Your task to perform on an android device: Open Youtube and go to the subscriptions tab Image 0: 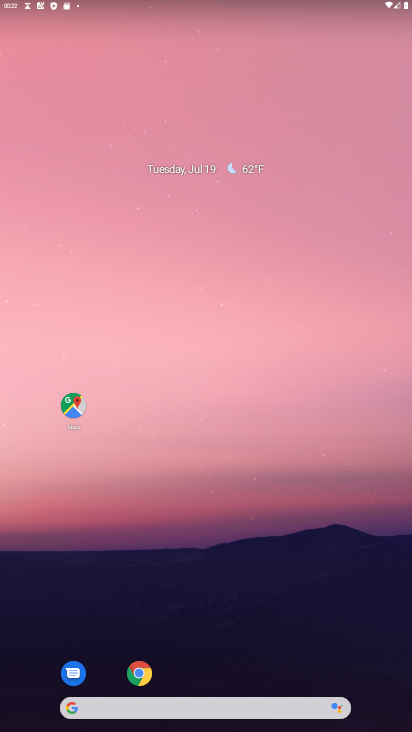
Step 0: drag from (236, 681) to (243, 259)
Your task to perform on an android device: Open Youtube and go to the subscriptions tab Image 1: 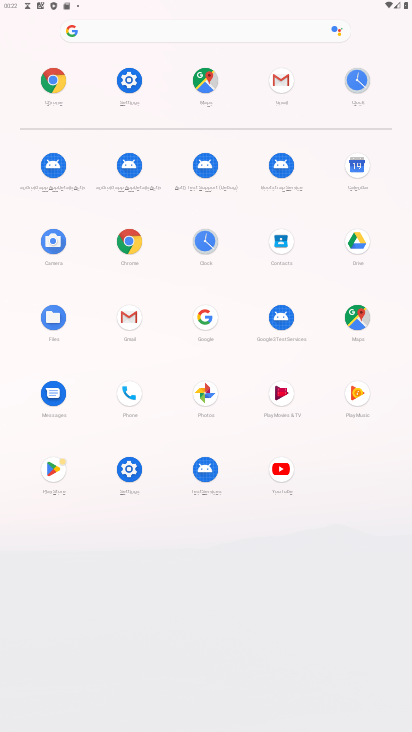
Step 1: click (281, 464)
Your task to perform on an android device: Open Youtube and go to the subscriptions tab Image 2: 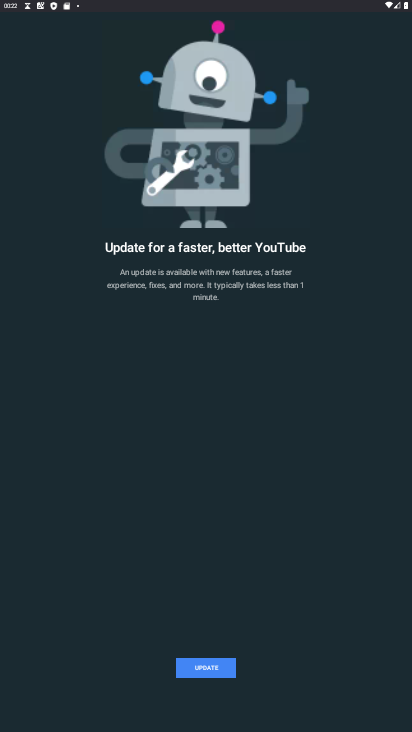
Step 2: task complete